Your task to perform on an android device: Open Google Chrome and click the shortcut for Amazon.com Image 0: 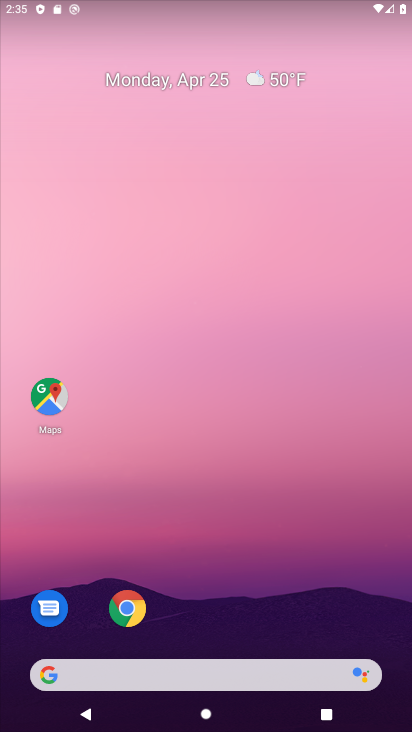
Step 0: click (123, 602)
Your task to perform on an android device: Open Google Chrome and click the shortcut for Amazon.com Image 1: 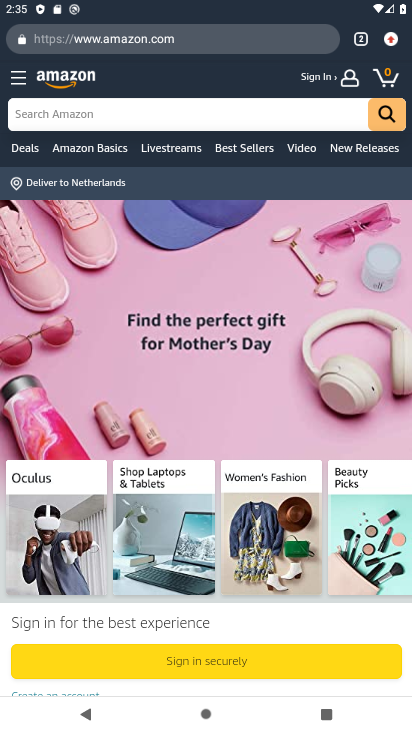
Step 1: task complete